Your task to perform on an android device: turn notification dots off Image 0: 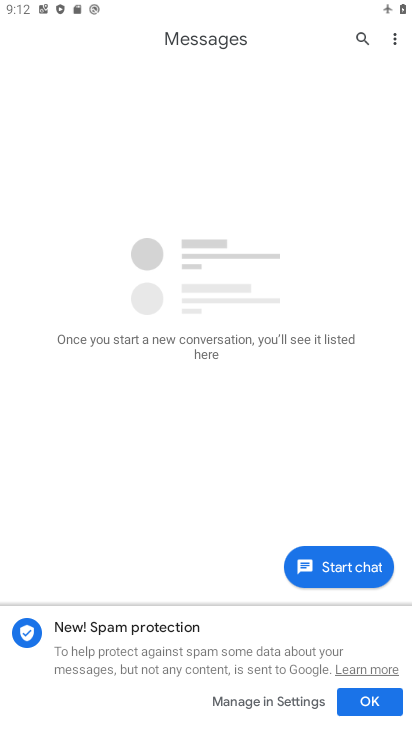
Step 0: press home button
Your task to perform on an android device: turn notification dots off Image 1: 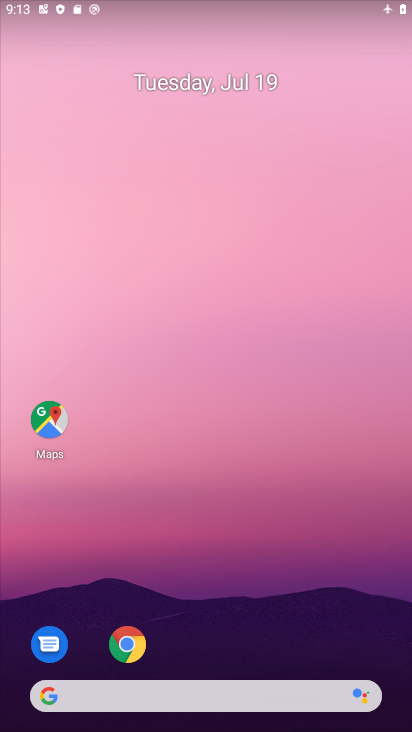
Step 1: drag from (248, 657) to (219, 153)
Your task to perform on an android device: turn notification dots off Image 2: 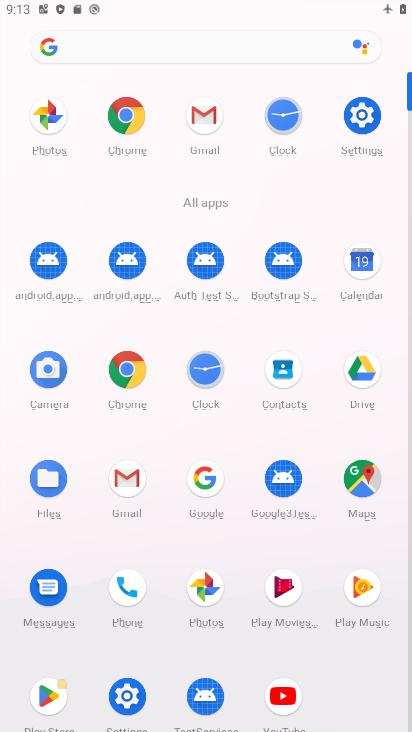
Step 2: click (362, 122)
Your task to perform on an android device: turn notification dots off Image 3: 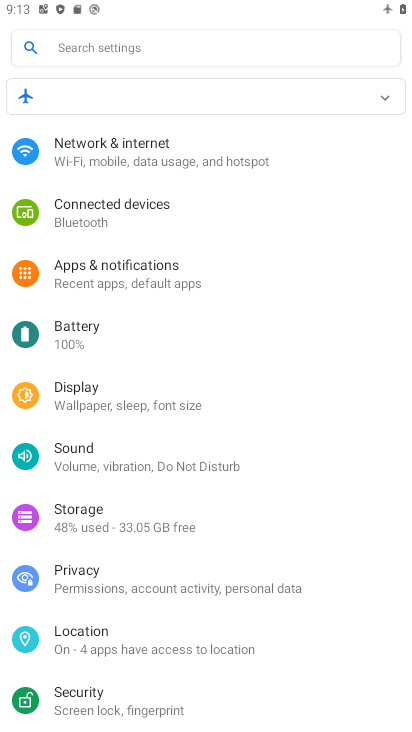
Step 3: click (144, 266)
Your task to perform on an android device: turn notification dots off Image 4: 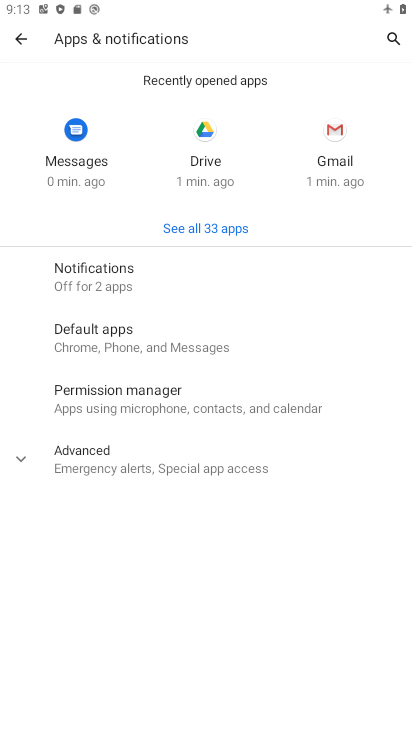
Step 4: click (82, 284)
Your task to perform on an android device: turn notification dots off Image 5: 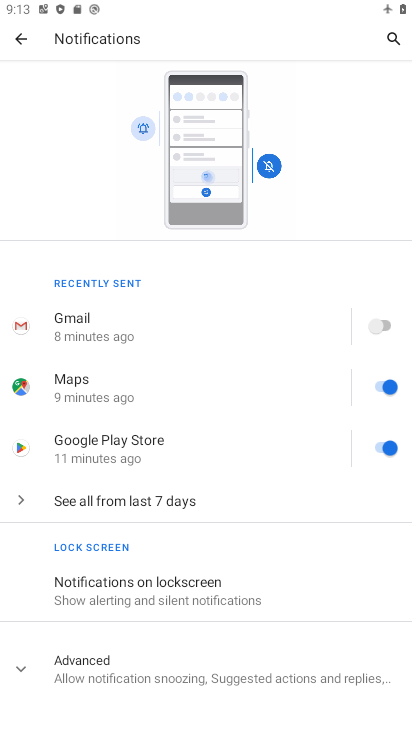
Step 5: click (135, 659)
Your task to perform on an android device: turn notification dots off Image 6: 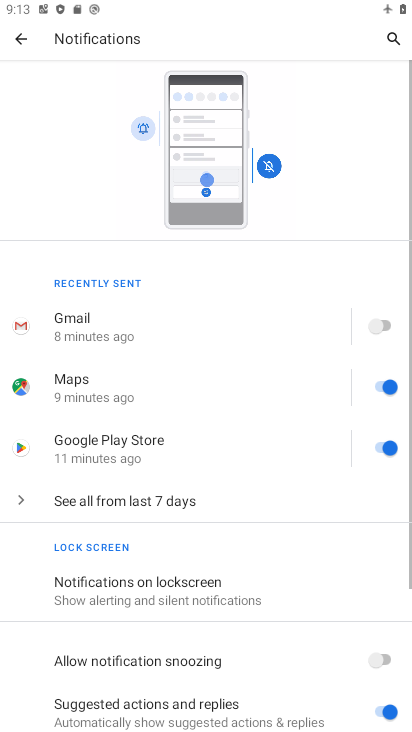
Step 6: drag from (135, 659) to (137, 137)
Your task to perform on an android device: turn notification dots off Image 7: 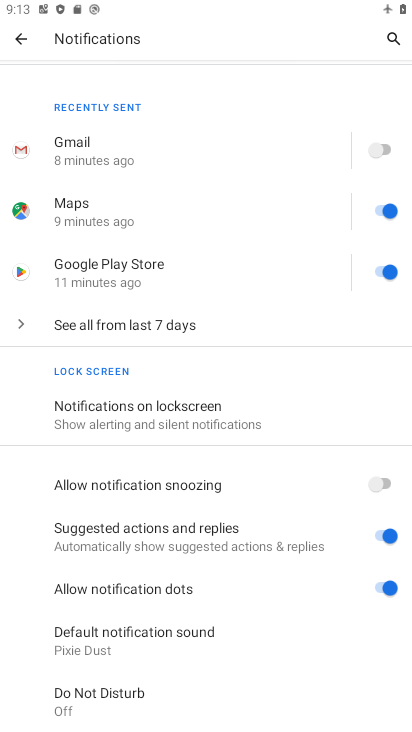
Step 7: click (382, 582)
Your task to perform on an android device: turn notification dots off Image 8: 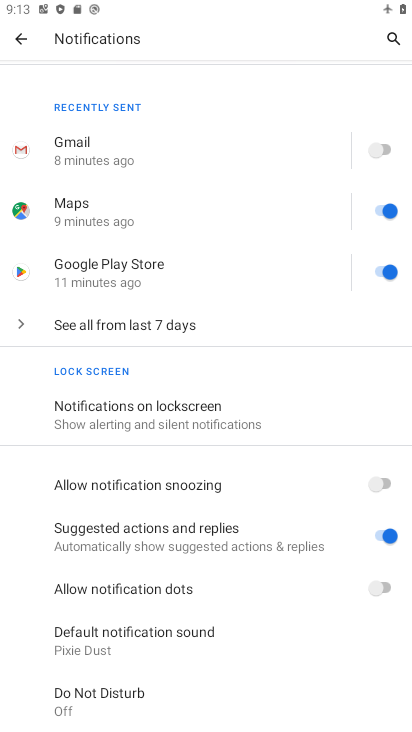
Step 8: task complete